Your task to perform on an android device: Is it going to rain today? Image 0: 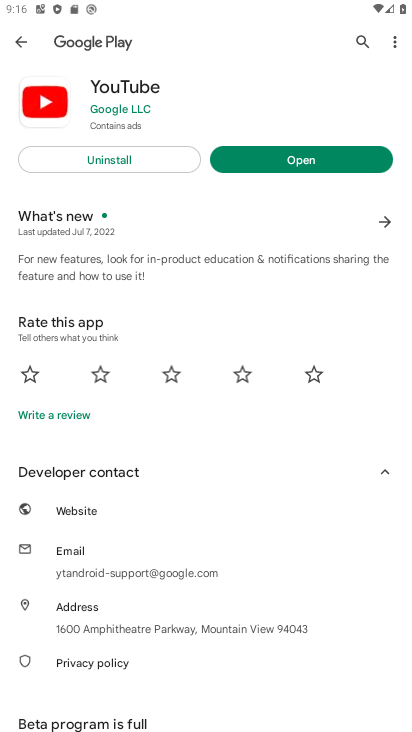
Step 0: press home button
Your task to perform on an android device: Is it going to rain today? Image 1: 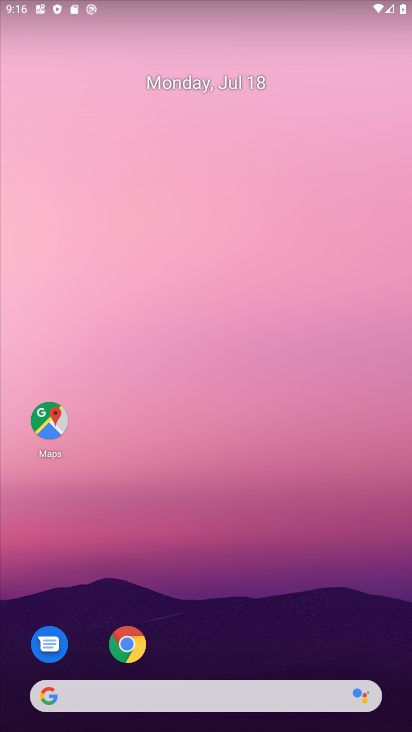
Step 1: drag from (198, 669) to (188, 5)
Your task to perform on an android device: Is it going to rain today? Image 2: 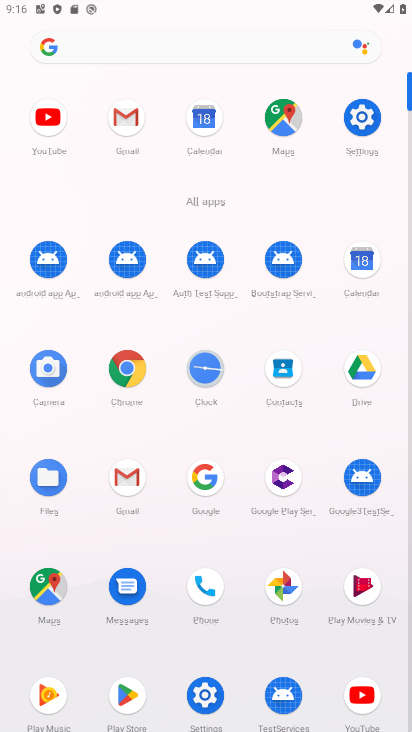
Step 2: click (368, 281)
Your task to perform on an android device: Is it going to rain today? Image 3: 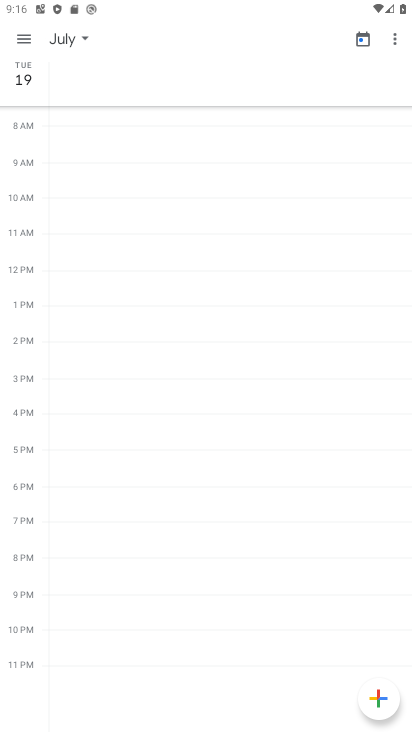
Step 3: press home button
Your task to perform on an android device: Is it going to rain today? Image 4: 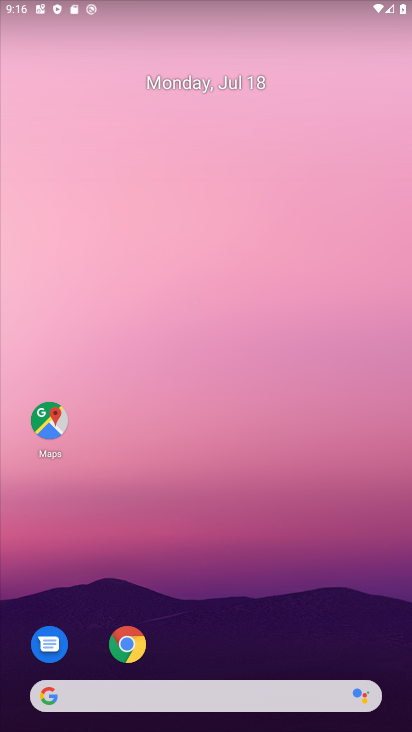
Step 4: click (193, 693)
Your task to perform on an android device: Is it going to rain today? Image 5: 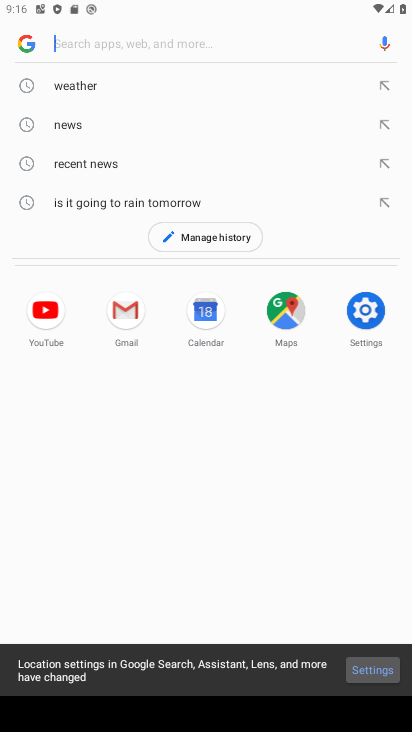
Step 5: click (72, 91)
Your task to perform on an android device: Is it going to rain today? Image 6: 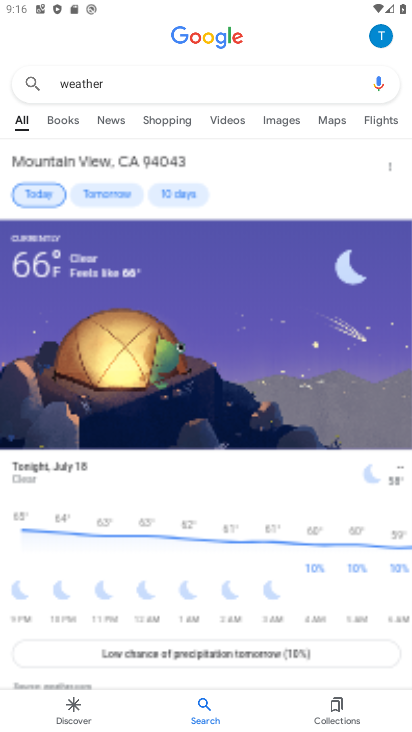
Step 6: click (39, 198)
Your task to perform on an android device: Is it going to rain today? Image 7: 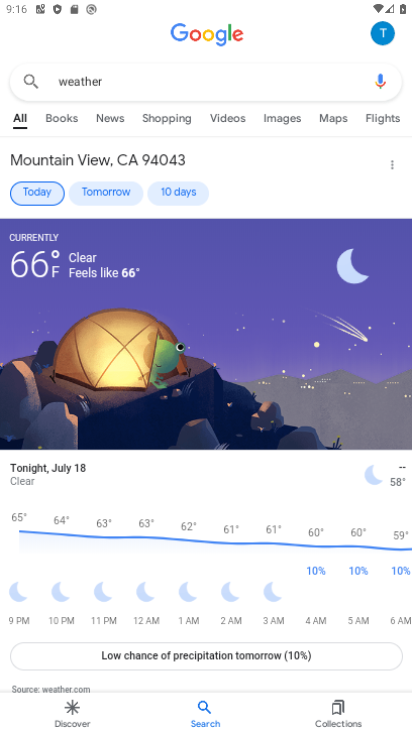
Step 7: task complete